Your task to perform on an android device: Is it going to rain today? Image 0: 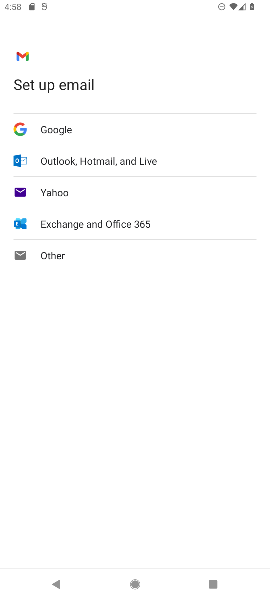
Step 0: press back button
Your task to perform on an android device: Is it going to rain today? Image 1: 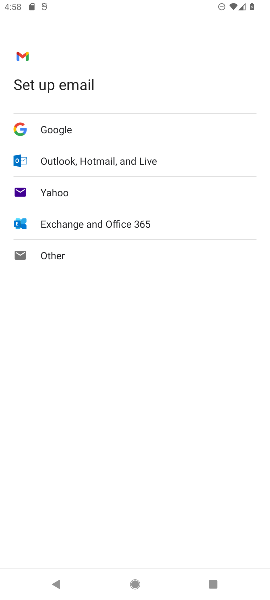
Step 1: press back button
Your task to perform on an android device: Is it going to rain today? Image 2: 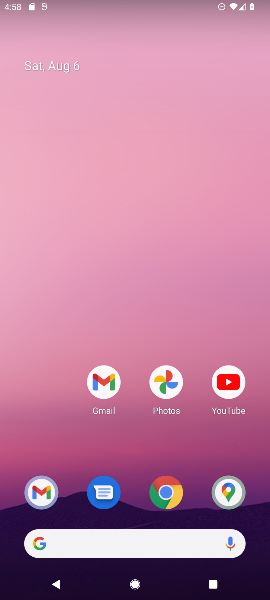
Step 2: press back button
Your task to perform on an android device: Is it going to rain today? Image 3: 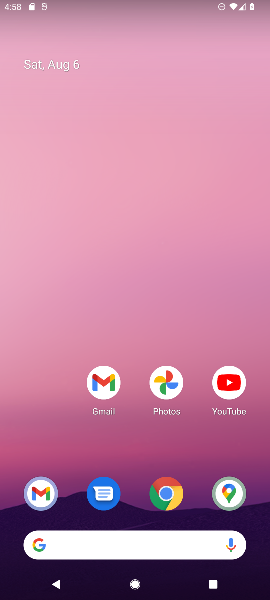
Step 3: drag from (185, 459) to (130, 10)
Your task to perform on an android device: Is it going to rain today? Image 4: 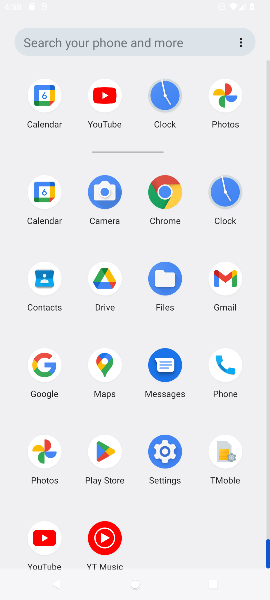
Step 4: drag from (159, 375) to (110, 118)
Your task to perform on an android device: Is it going to rain today? Image 5: 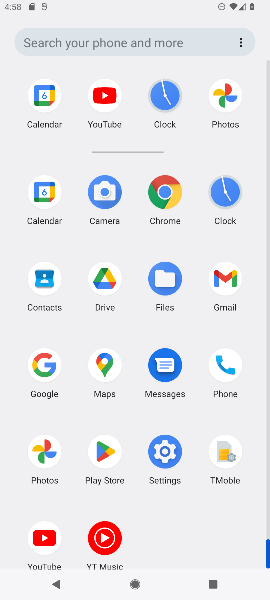
Step 5: drag from (131, 403) to (101, 110)
Your task to perform on an android device: Is it going to rain today? Image 6: 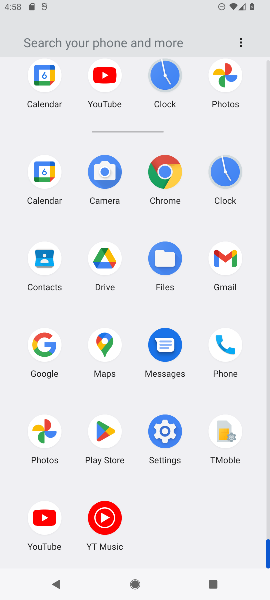
Step 6: click (163, 161)
Your task to perform on an android device: Is it going to rain today? Image 7: 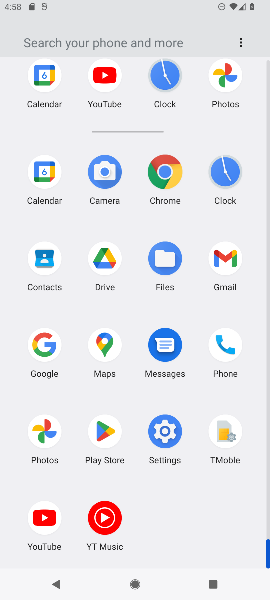
Step 7: click (166, 176)
Your task to perform on an android device: Is it going to rain today? Image 8: 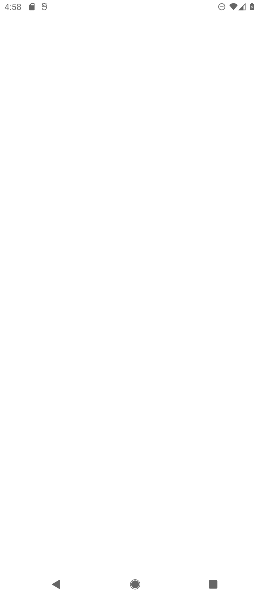
Step 8: click (167, 179)
Your task to perform on an android device: Is it going to rain today? Image 9: 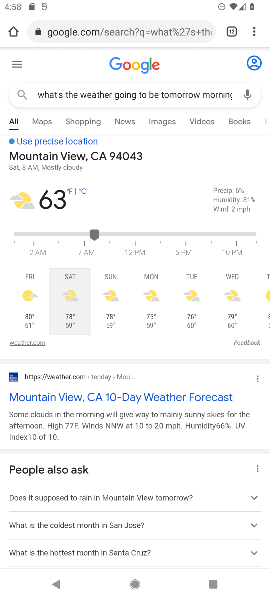
Step 9: click (252, 26)
Your task to perform on an android device: Is it going to rain today? Image 10: 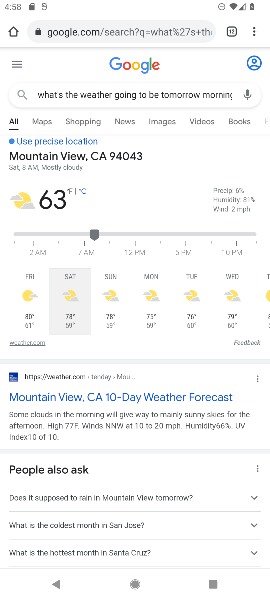
Step 10: click (252, 26)
Your task to perform on an android device: Is it going to rain today? Image 11: 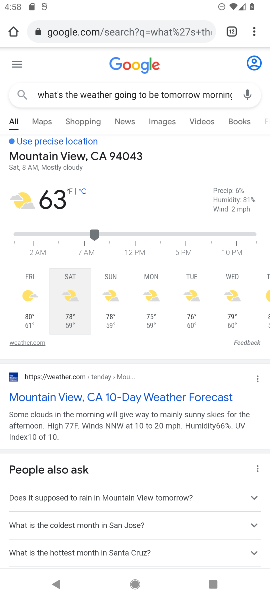
Step 11: click (252, 34)
Your task to perform on an android device: Is it going to rain today? Image 12: 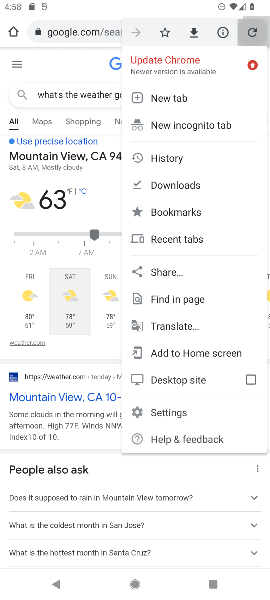
Step 12: click (252, 34)
Your task to perform on an android device: Is it going to rain today? Image 13: 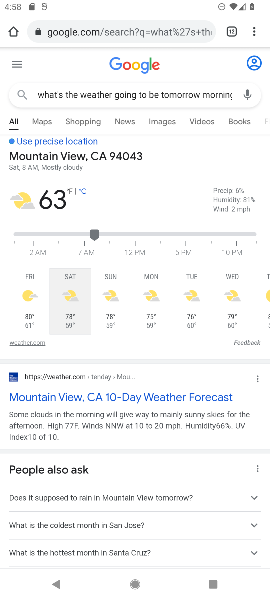
Step 13: click (167, 33)
Your task to perform on an android device: Is it going to rain today? Image 14: 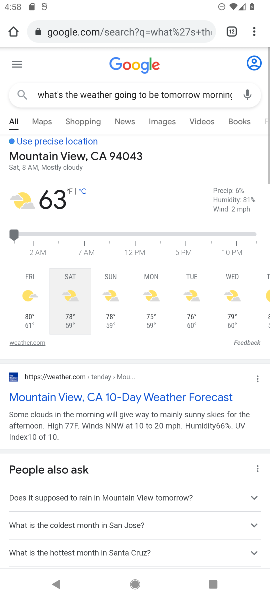
Step 14: click (244, 28)
Your task to perform on an android device: Is it going to rain today? Image 15: 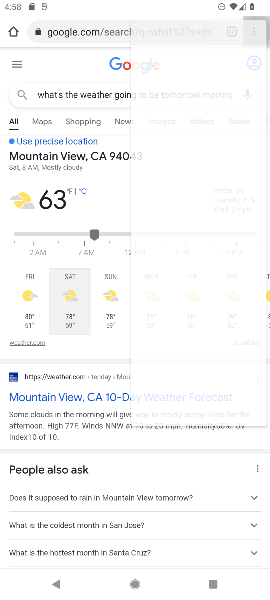
Step 15: drag from (244, 28) to (178, 22)
Your task to perform on an android device: Is it going to rain today? Image 16: 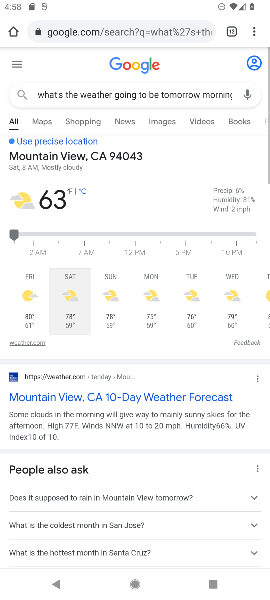
Step 16: drag from (251, 28) to (178, 91)
Your task to perform on an android device: Is it going to rain today? Image 17: 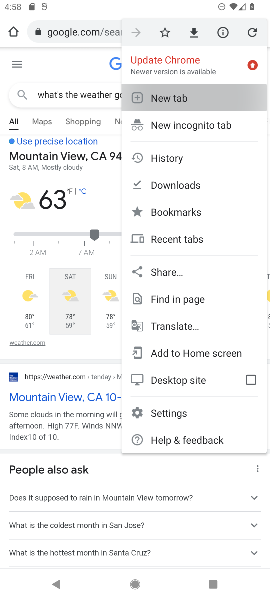
Step 17: click (179, 92)
Your task to perform on an android device: Is it going to rain today? Image 18: 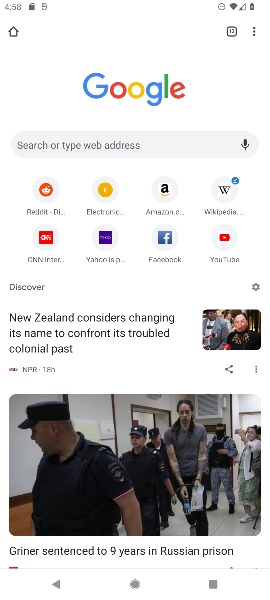
Step 18: click (62, 141)
Your task to perform on an android device: Is it going to rain today? Image 19: 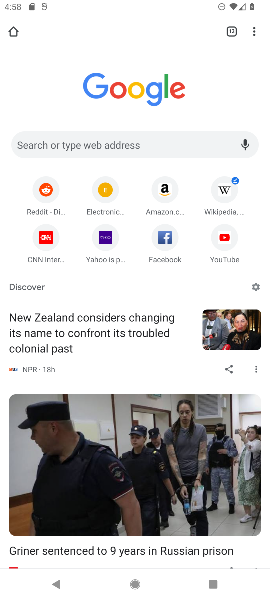
Step 19: click (64, 141)
Your task to perform on an android device: Is it going to rain today? Image 20: 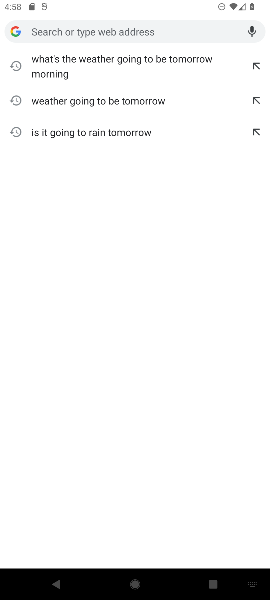
Step 20: click (111, 133)
Your task to perform on an android device: Is it going to rain today? Image 21: 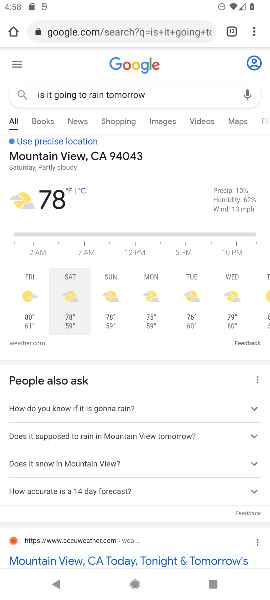
Step 21: task complete